Your task to perform on an android device: When is my next appointment? Image 0: 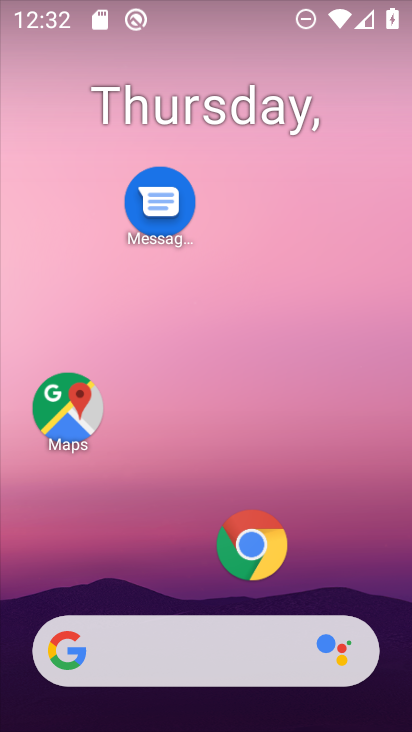
Step 0: drag from (190, 583) to (277, 104)
Your task to perform on an android device: When is my next appointment? Image 1: 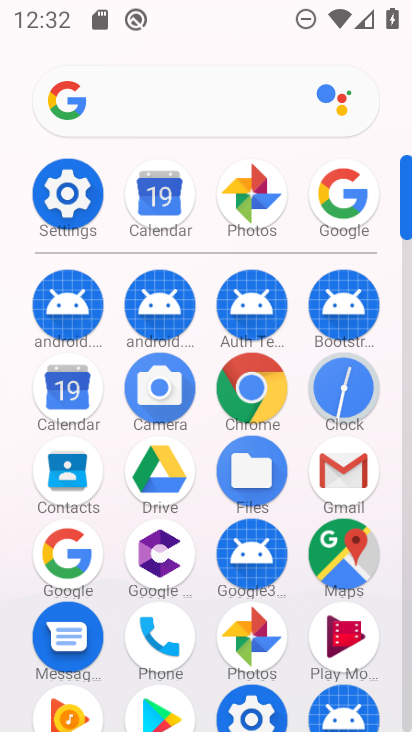
Step 1: click (76, 391)
Your task to perform on an android device: When is my next appointment? Image 2: 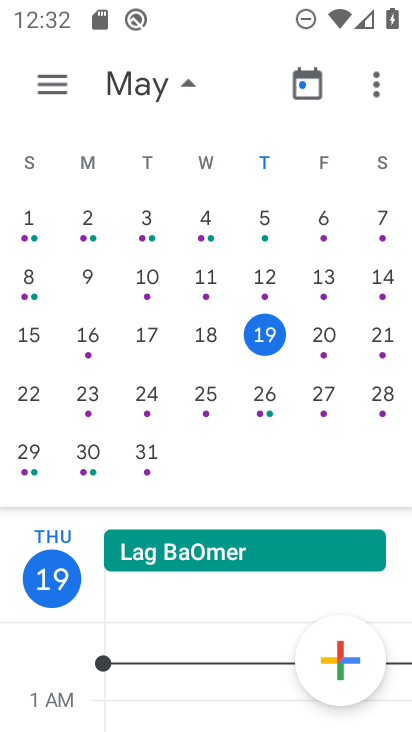
Step 2: drag from (226, 609) to (221, 433)
Your task to perform on an android device: When is my next appointment? Image 3: 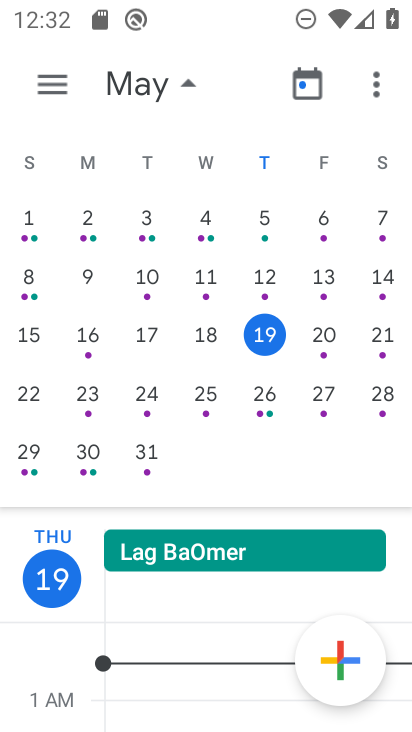
Step 3: click (69, 84)
Your task to perform on an android device: When is my next appointment? Image 4: 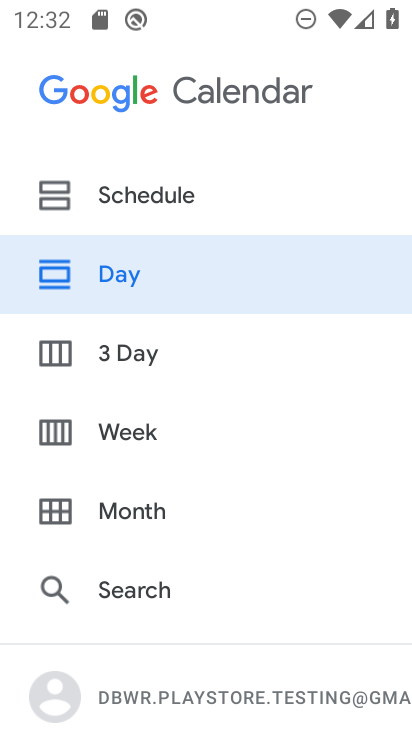
Step 4: click (197, 200)
Your task to perform on an android device: When is my next appointment? Image 5: 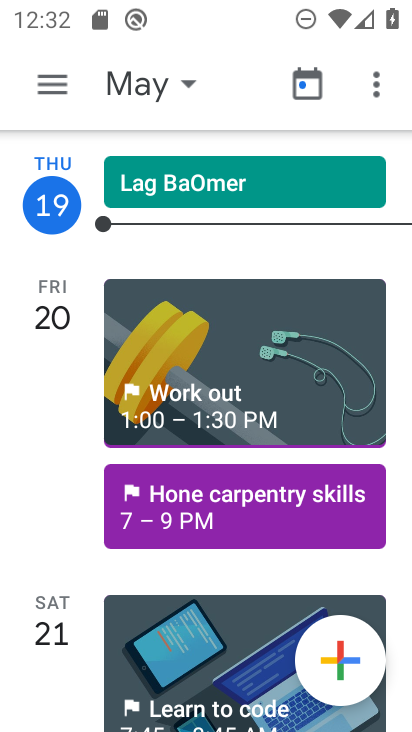
Step 5: task complete